Your task to perform on an android device: toggle pop-ups in chrome Image 0: 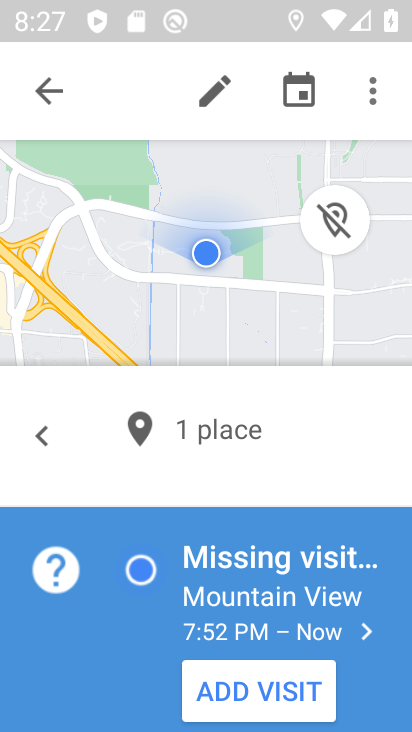
Step 0: press home button
Your task to perform on an android device: toggle pop-ups in chrome Image 1: 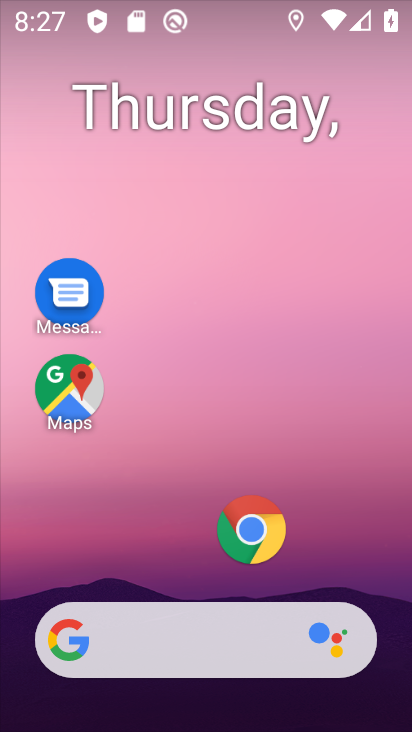
Step 1: click (248, 518)
Your task to perform on an android device: toggle pop-ups in chrome Image 2: 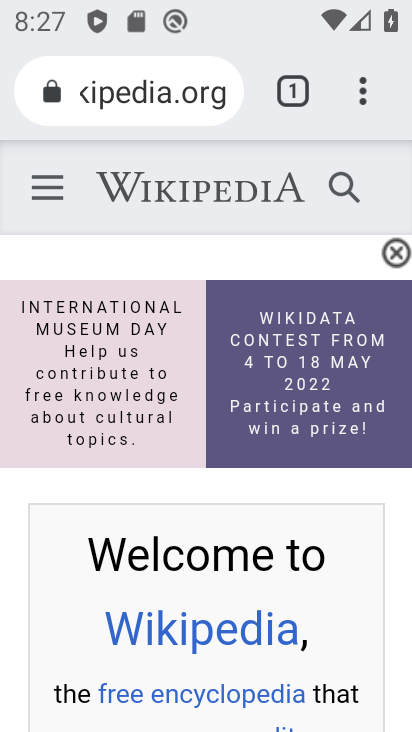
Step 2: click (374, 88)
Your task to perform on an android device: toggle pop-ups in chrome Image 3: 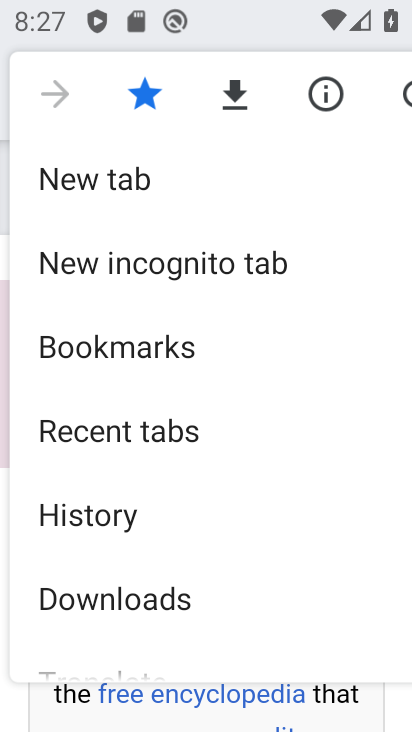
Step 3: drag from (178, 611) to (238, 292)
Your task to perform on an android device: toggle pop-ups in chrome Image 4: 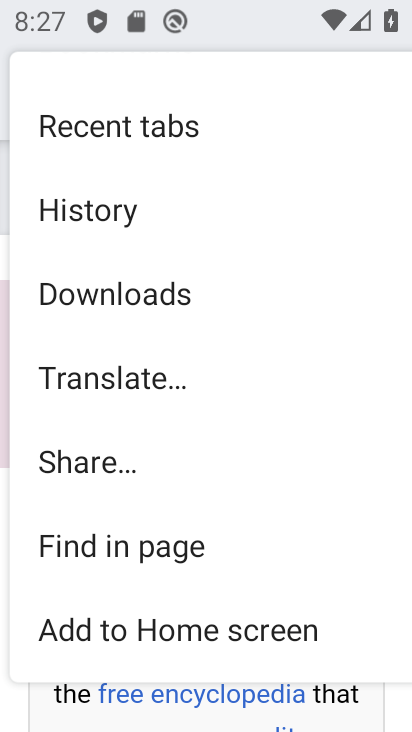
Step 4: drag from (142, 636) to (243, 172)
Your task to perform on an android device: toggle pop-ups in chrome Image 5: 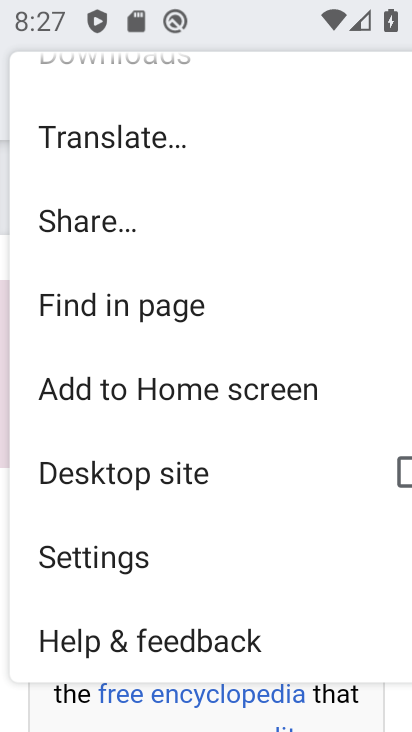
Step 5: click (123, 563)
Your task to perform on an android device: toggle pop-ups in chrome Image 6: 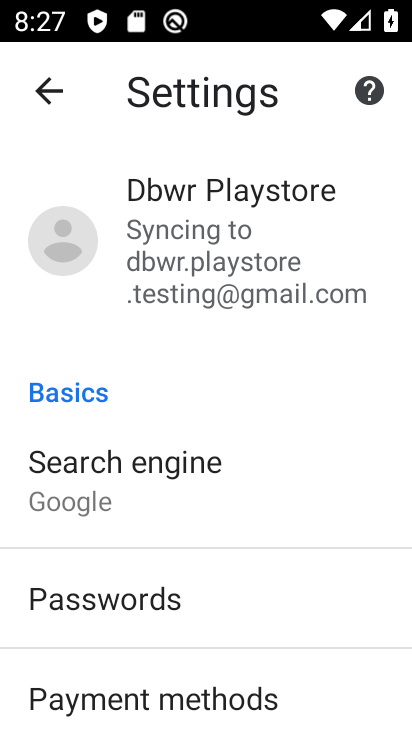
Step 6: drag from (144, 598) to (195, 195)
Your task to perform on an android device: toggle pop-ups in chrome Image 7: 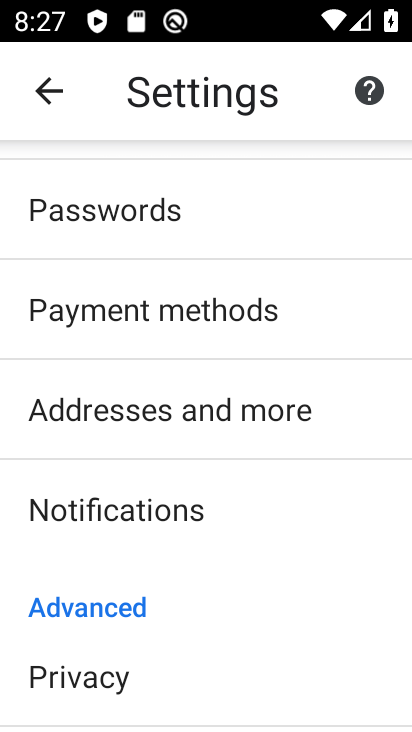
Step 7: drag from (218, 633) to (239, 343)
Your task to perform on an android device: toggle pop-ups in chrome Image 8: 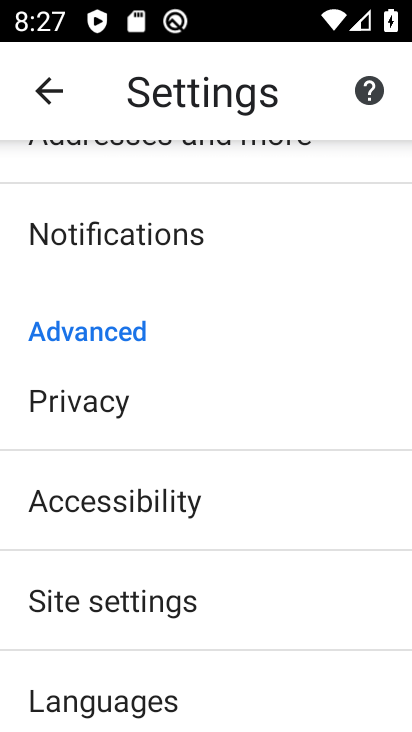
Step 8: click (165, 635)
Your task to perform on an android device: toggle pop-ups in chrome Image 9: 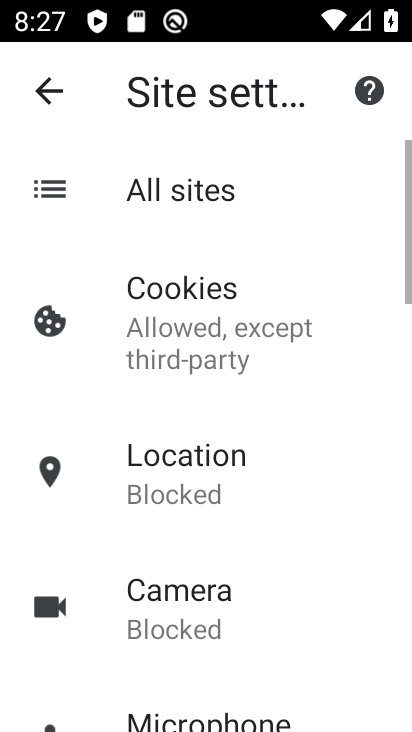
Step 9: drag from (165, 635) to (185, 331)
Your task to perform on an android device: toggle pop-ups in chrome Image 10: 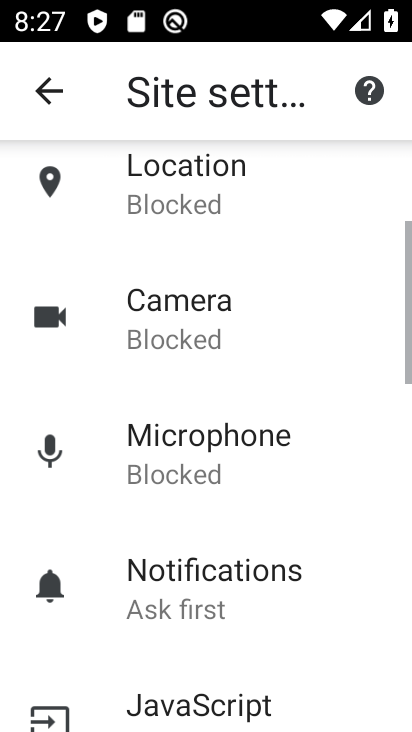
Step 10: drag from (180, 599) to (198, 350)
Your task to perform on an android device: toggle pop-ups in chrome Image 11: 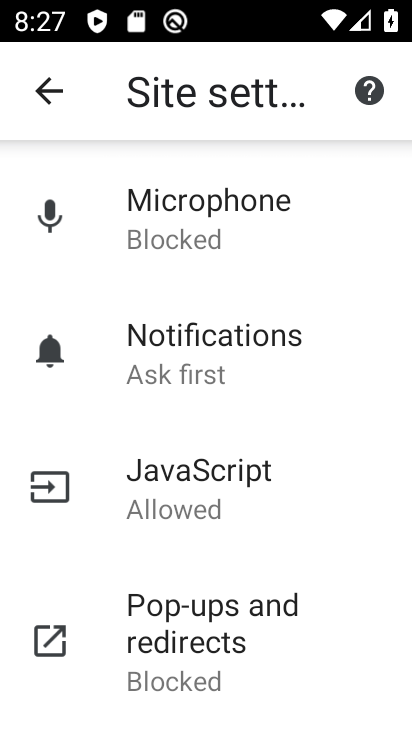
Step 11: click (163, 673)
Your task to perform on an android device: toggle pop-ups in chrome Image 12: 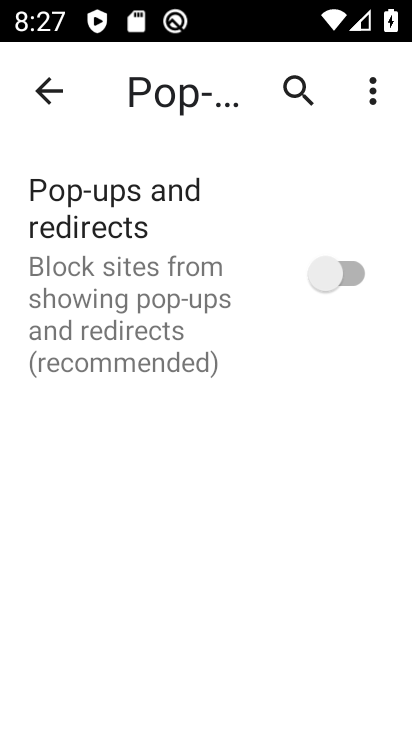
Step 12: click (342, 275)
Your task to perform on an android device: toggle pop-ups in chrome Image 13: 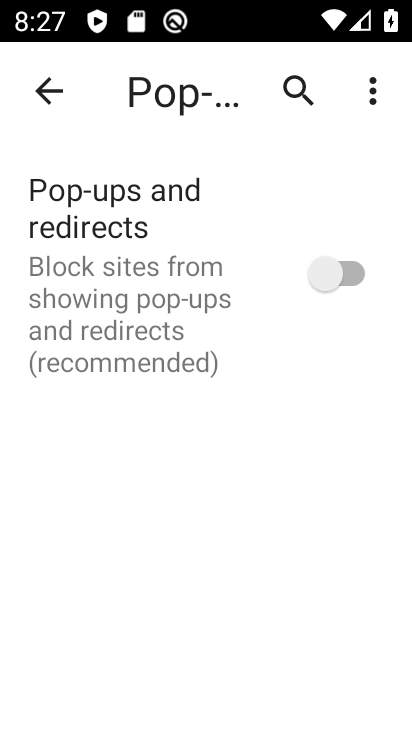
Step 13: click (342, 275)
Your task to perform on an android device: toggle pop-ups in chrome Image 14: 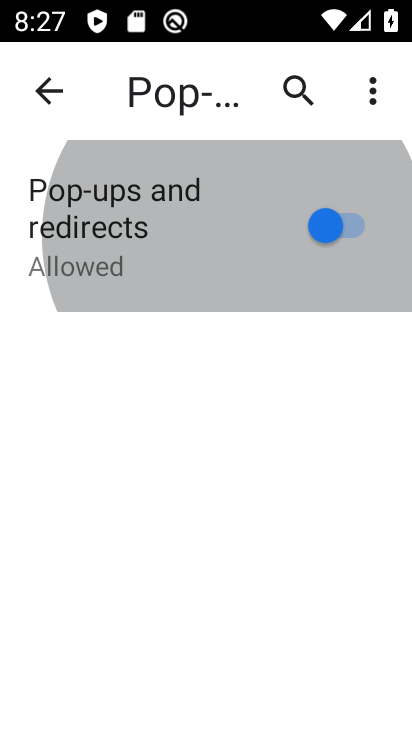
Step 14: click (342, 275)
Your task to perform on an android device: toggle pop-ups in chrome Image 15: 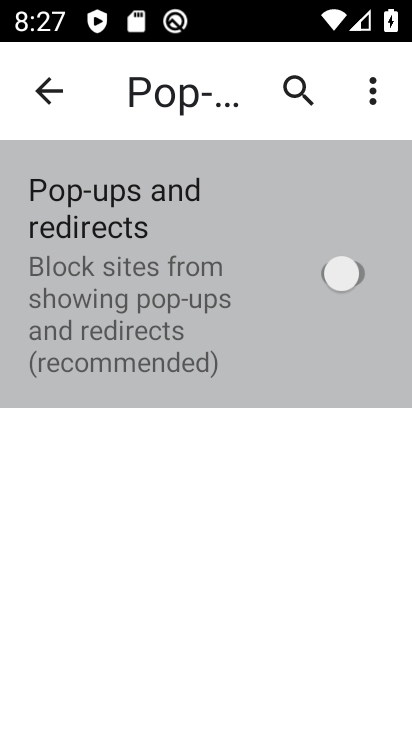
Step 15: click (342, 275)
Your task to perform on an android device: toggle pop-ups in chrome Image 16: 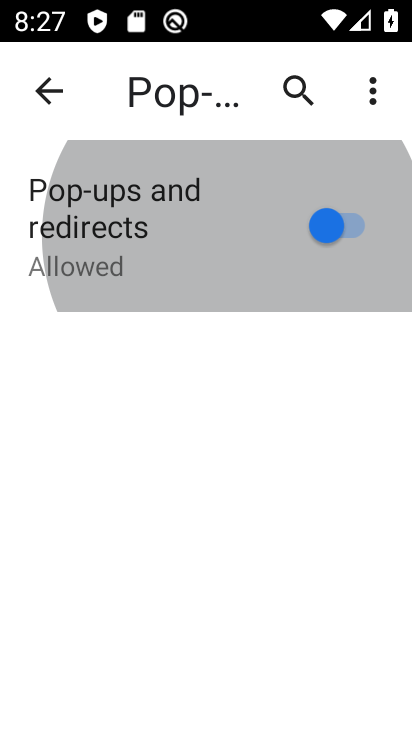
Step 16: click (342, 275)
Your task to perform on an android device: toggle pop-ups in chrome Image 17: 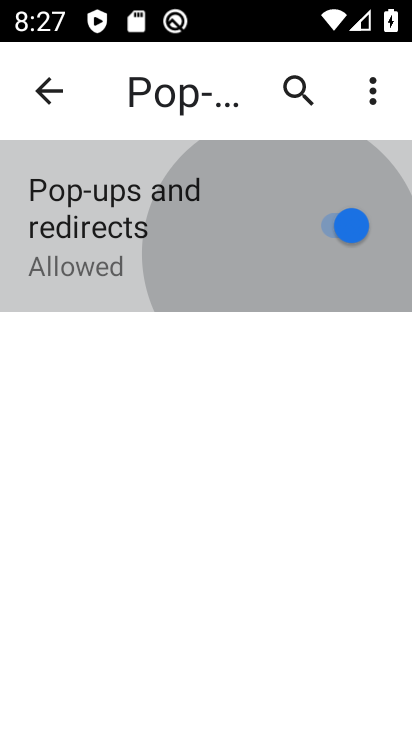
Step 17: click (342, 275)
Your task to perform on an android device: toggle pop-ups in chrome Image 18: 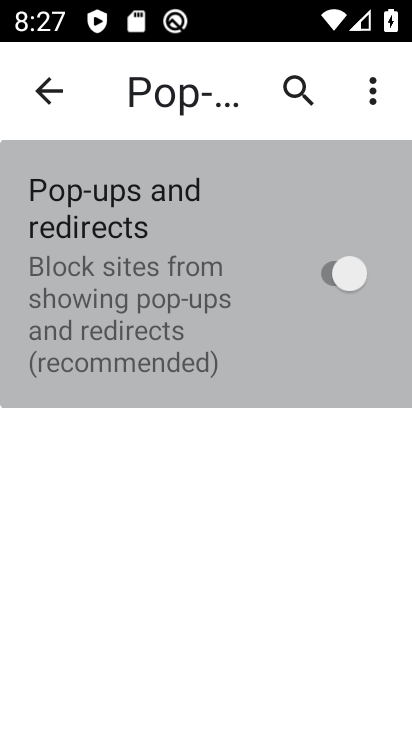
Step 18: click (342, 275)
Your task to perform on an android device: toggle pop-ups in chrome Image 19: 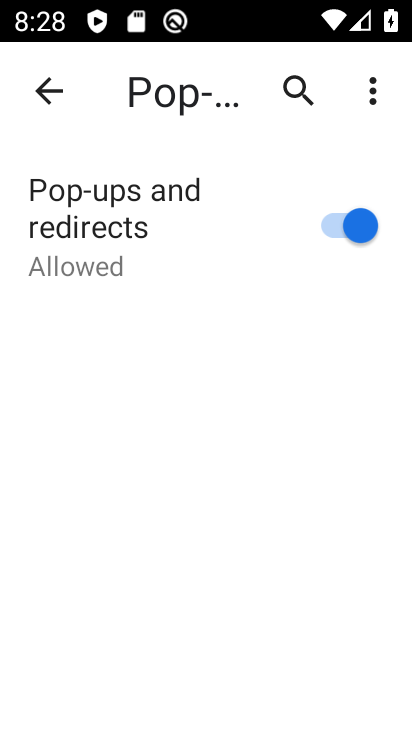
Step 19: task complete